Your task to perform on an android device: uninstall "Google News" Image 0: 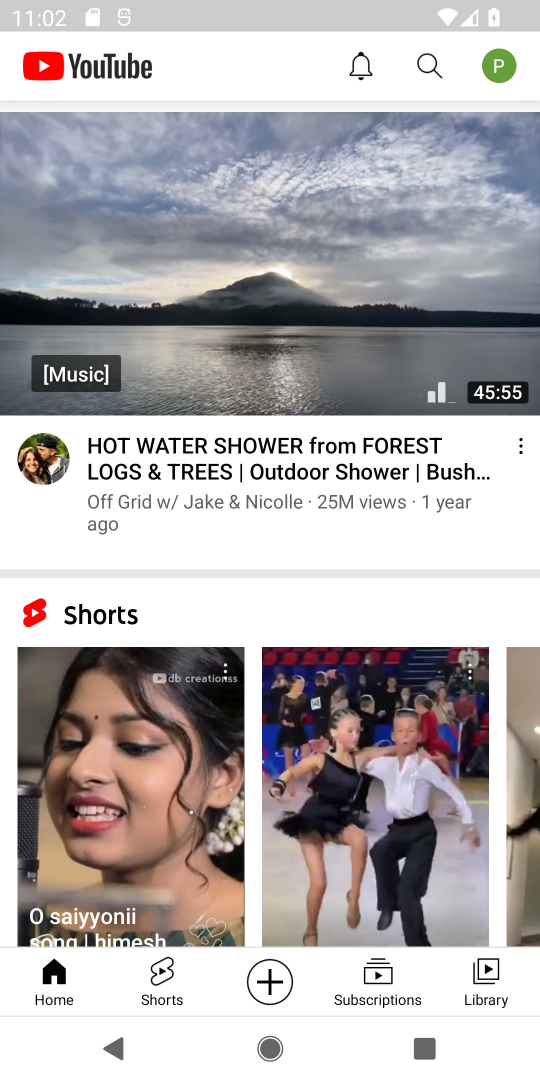
Step 0: press home button
Your task to perform on an android device: uninstall "Google News" Image 1: 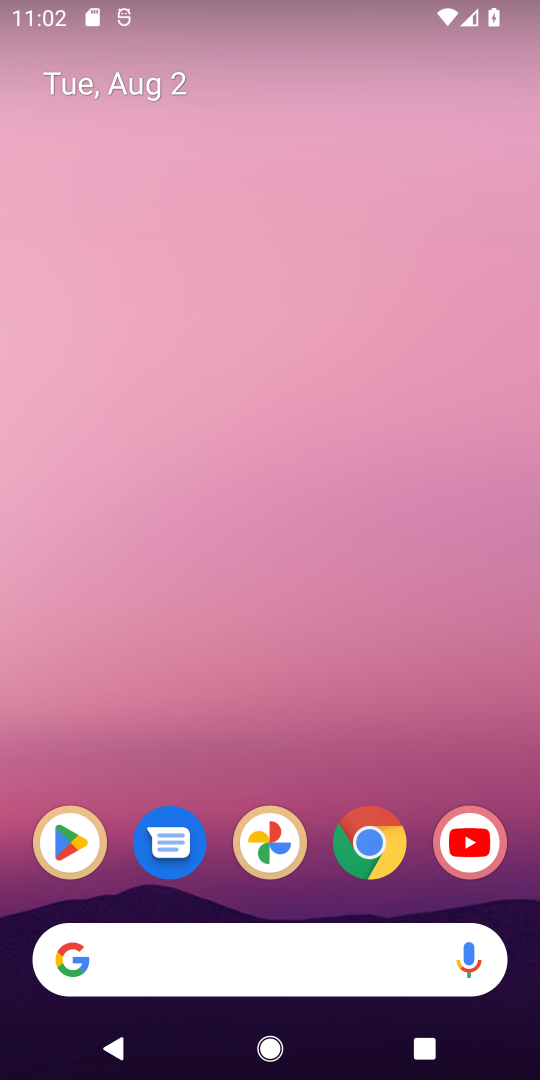
Step 1: click (50, 863)
Your task to perform on an android device: uninstall "Google News" Image 2: 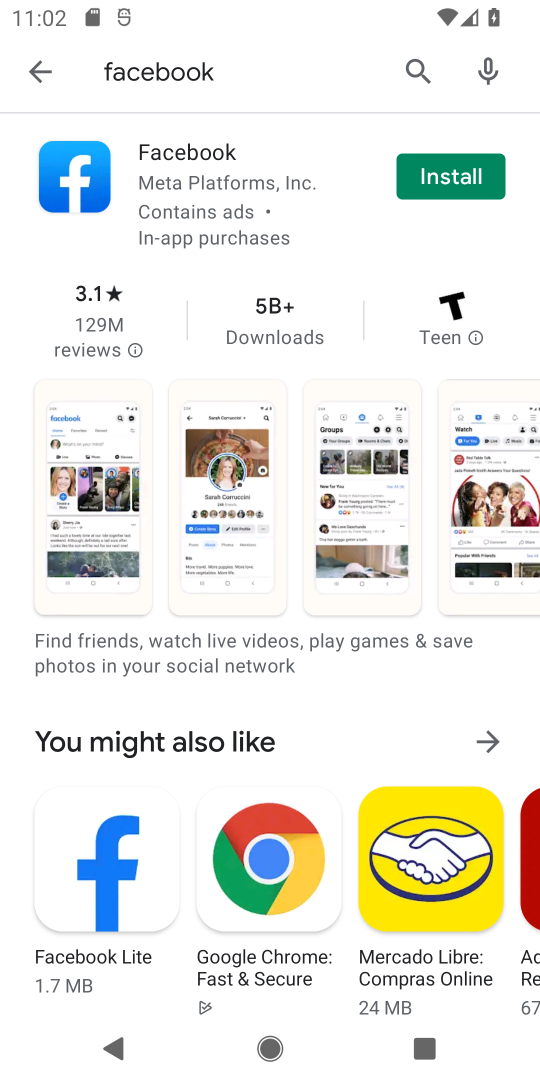
Step 2: click (416, 62)
Your task to perform on an android device: uninstall "Google News" Image 3: 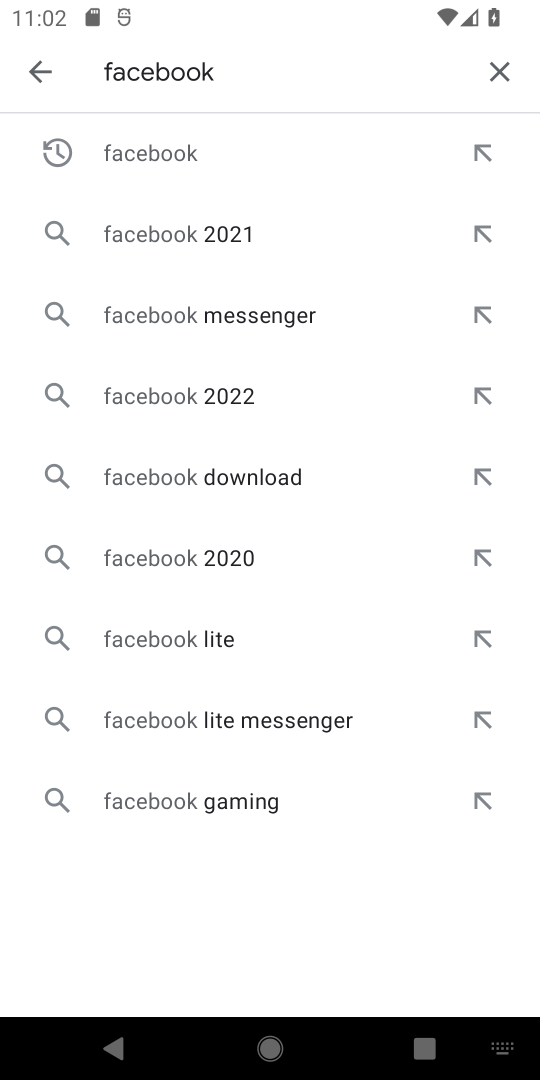
Step 3: click (512, 78)
Your task to perform on an android device: uninstall "Google News" Image 4: 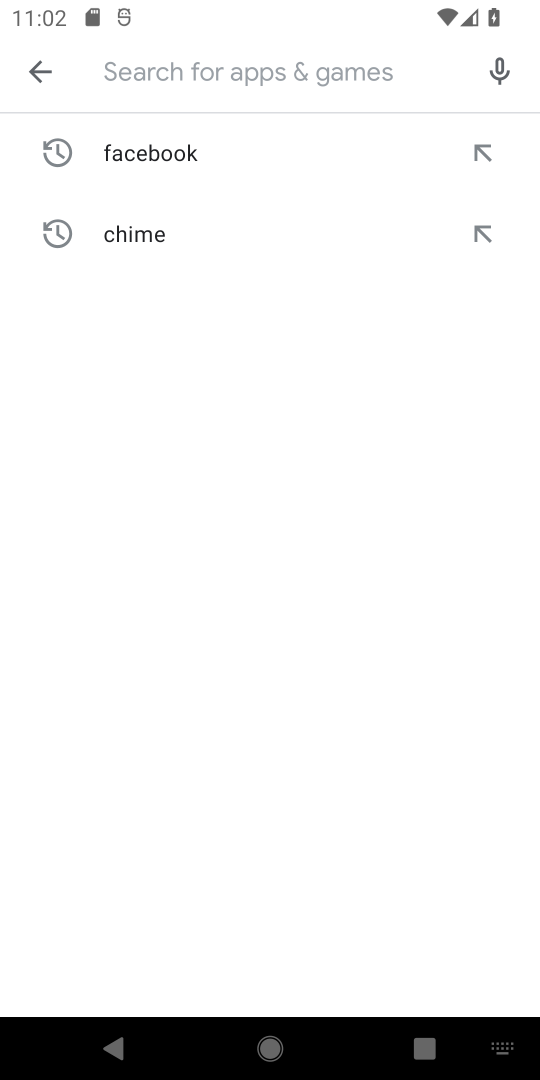
Step 4: type "Google News"
Your task to perform on an android device: uninstall "Google News" Image 5: 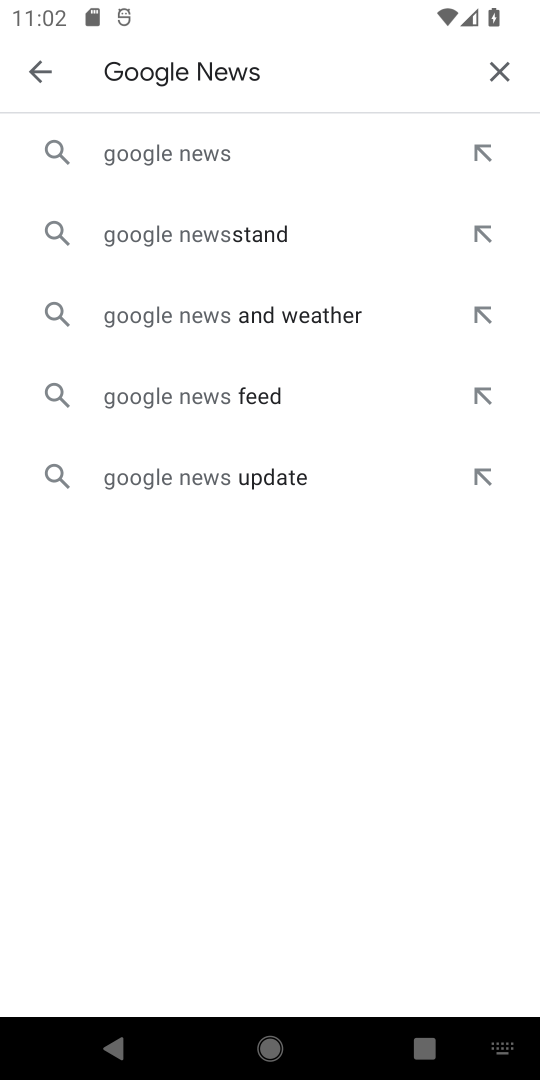
Step 5: click (209, 164)
Your task to perform on an android device: uninstall "Google News" Image 6: 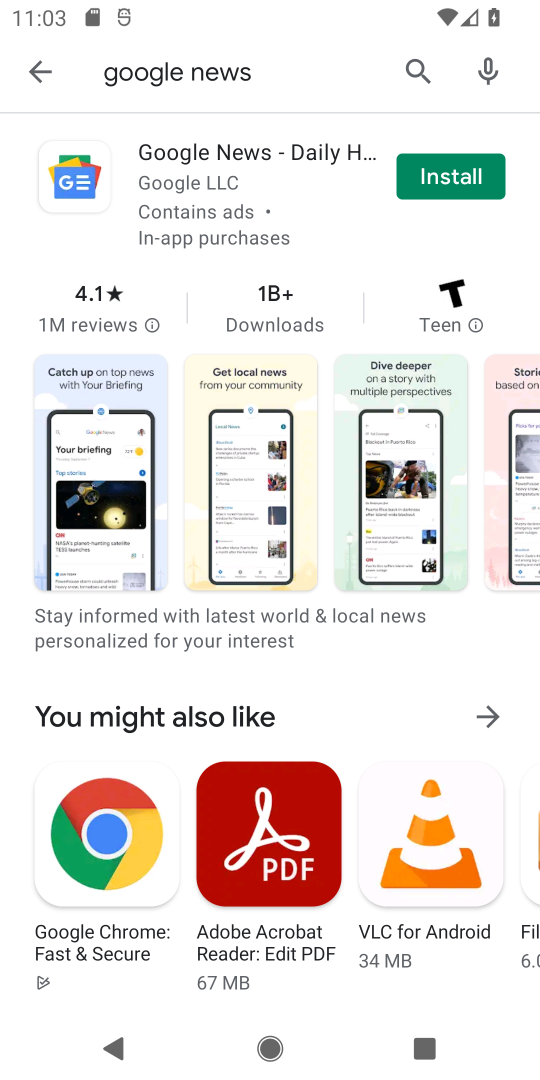
Step 6: task complete